Your task to perform on an android device: find photos in the google photos app Image 0: 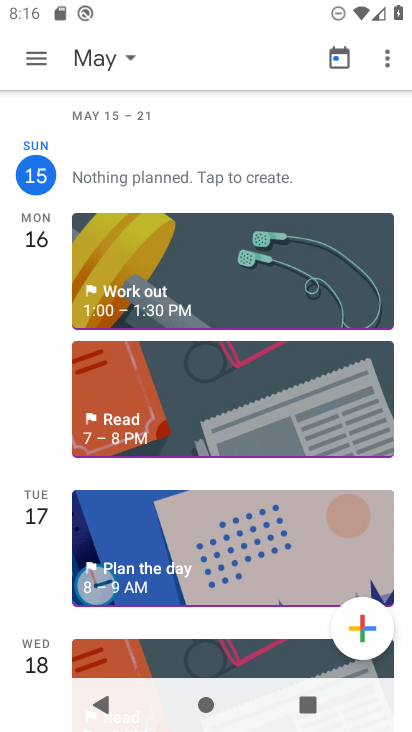
Step 0: press home button
Your task to perform on an android device: find photos in the google photos app Image 1: 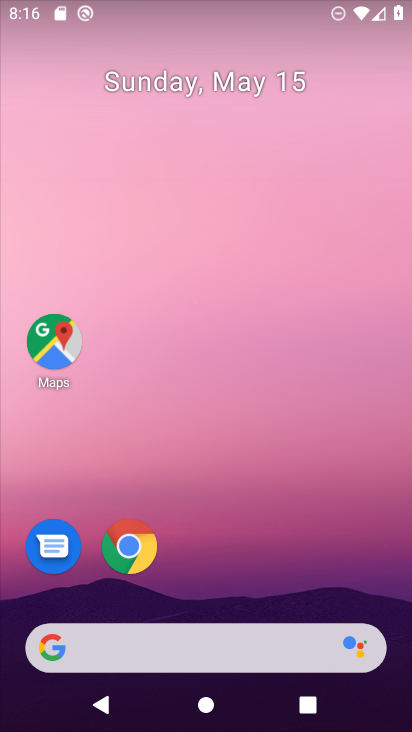
Step 1: drag from (245, 540) to (221, 86)
Your task to perform on an android device: find photos in the google photos app Image 2: 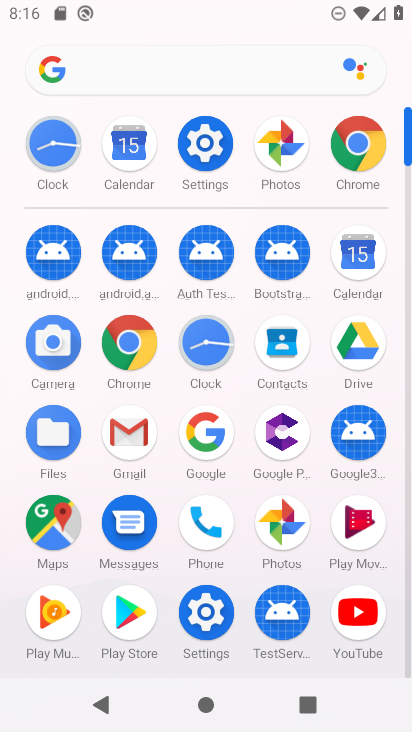
Step 2: click (286, 140)
Your task to perform on an android device: find photos in the google photos app Image 3: 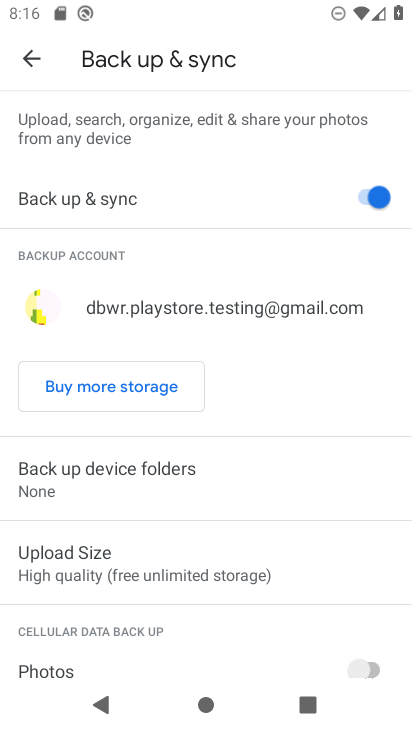
Step 3: click (23, 49)
Your task to perform on an android device: find photos in the google photos app Image 4: 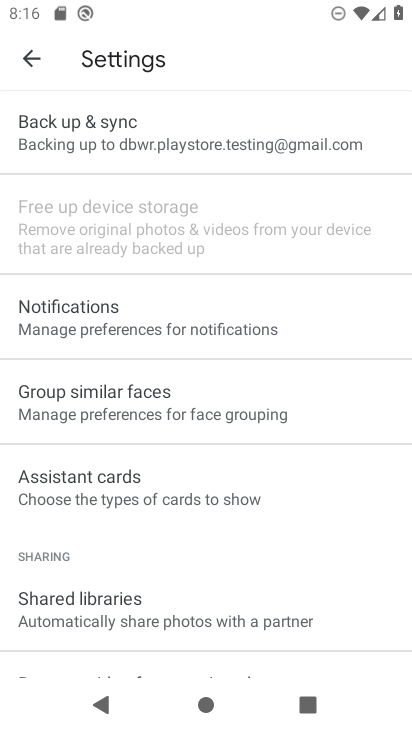
Step 4: click (25, 51)
Your task to perform on an android device: find photos in the google photos app Image 5: 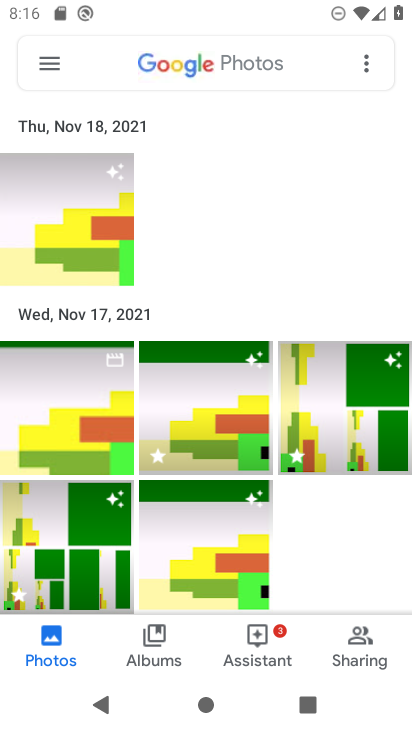
Step 5: task complete